Your task to perform on an android device: Find coffee shops on Maps Image 0: 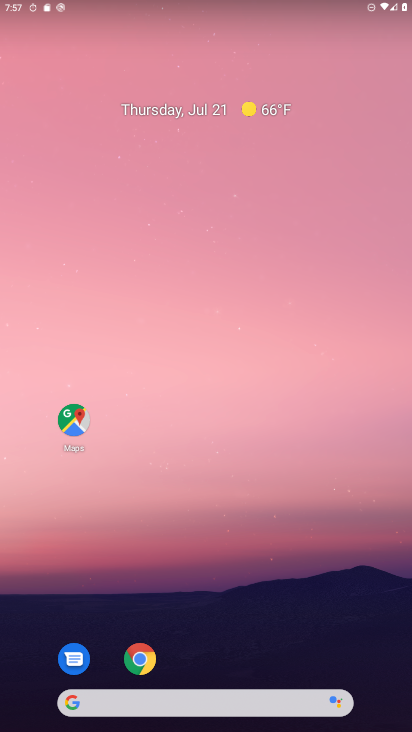
Step 0: click (382, 171)
Your task to perform on an android device: Find coffee shops on Maps Image 1: 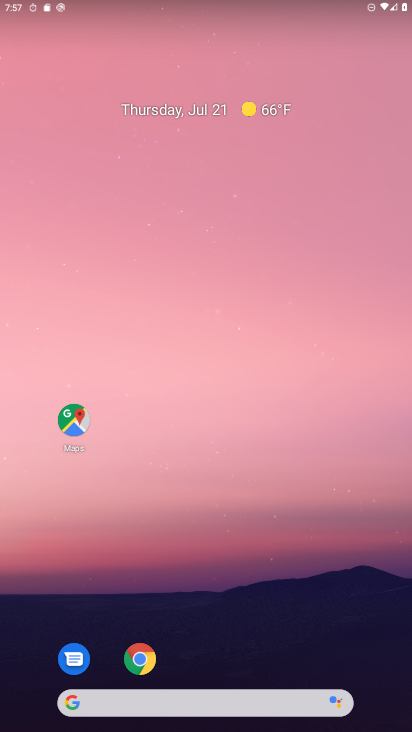
Step 1: drag from (177, 634) to (200, 217)
Your task to perform on an android device: Find coffee shops on Maps Image 2: 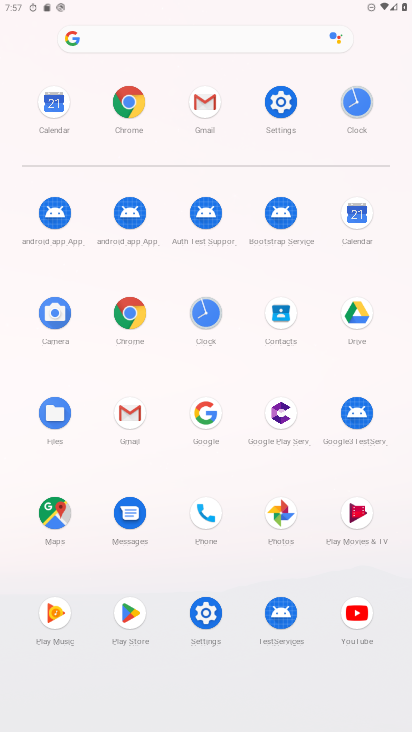
Step 2: click (51, 512)
Your task to perform on an android device: Find coffee shops on Maps Image 3: 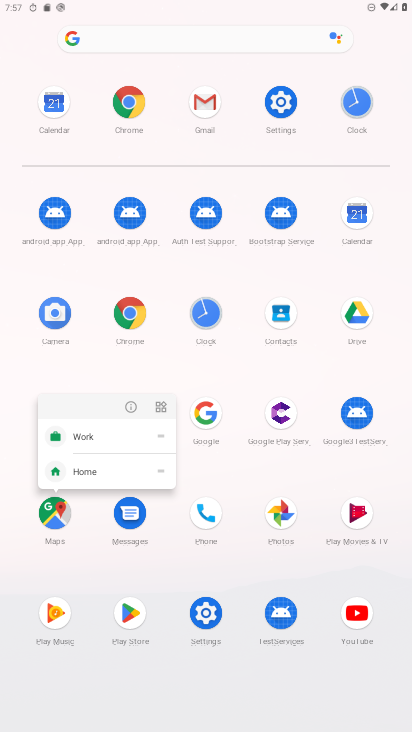
Step 3: click (131, 404)
Your task to perform on an android device: Find coffee shops on Maps Image 4: 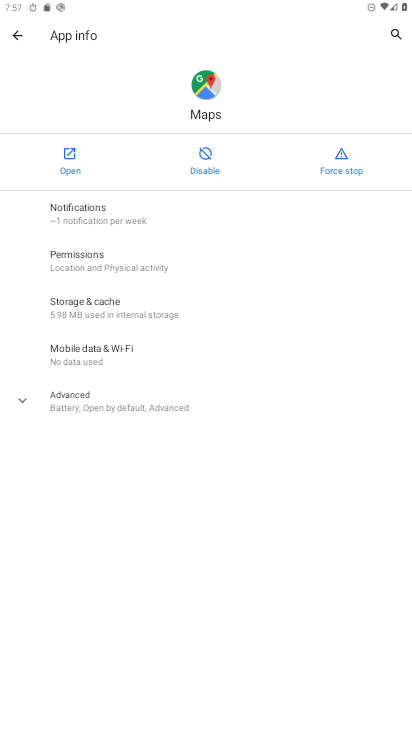
Step 4: click (76, 152)
Your task to perform on an android device: Find coffee shops on Maps Image 5: 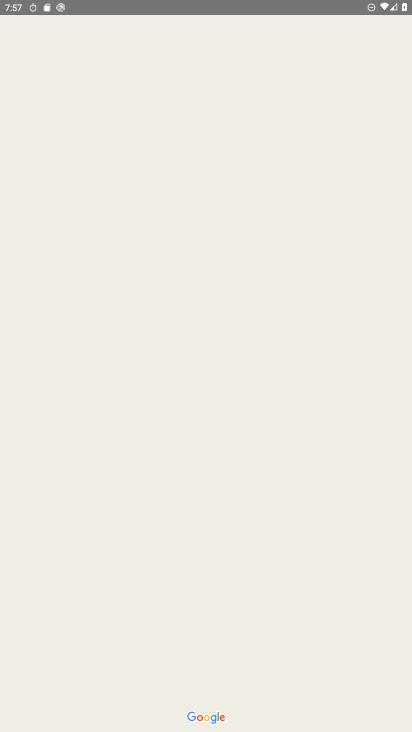
Step 5: drag from (165, 552) to (229, 254)
Your task to perform on an android device: Find coffee shops on Maps Image 6: 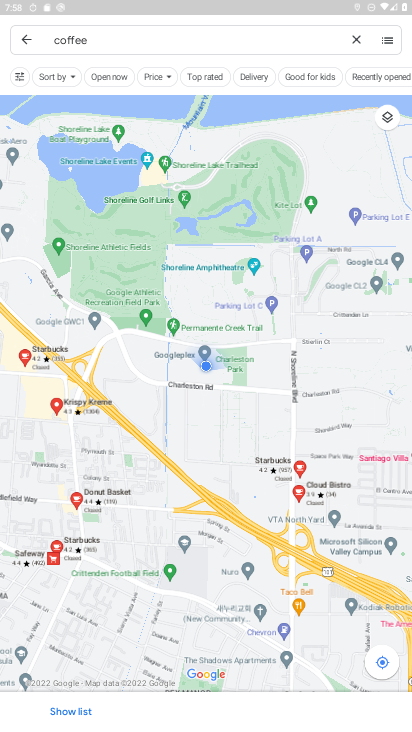
Step 6: click (171, 54)
Your task to perform on an android device: Find coffee shops on Maps Image 7: 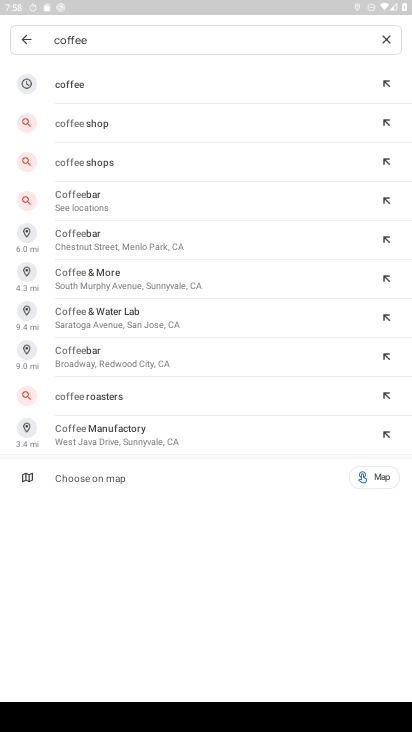
Step 7: click (92, 86)
Your task to perform on an android device: Find coffee shops on Maps Image 8: 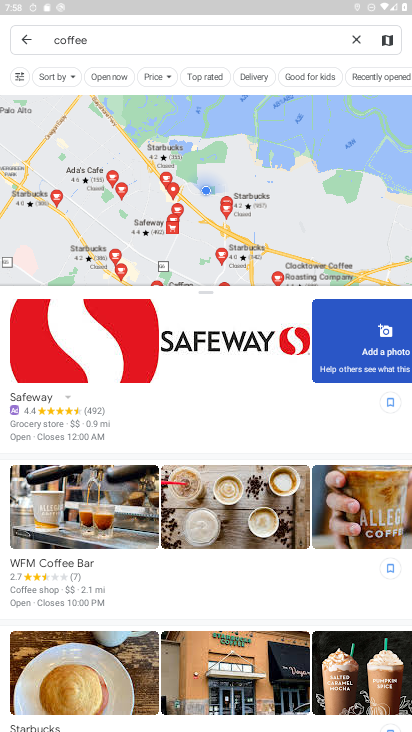
Step 8: task complete